Your task to perform on an android device: clear history in the chrome app Image 0: 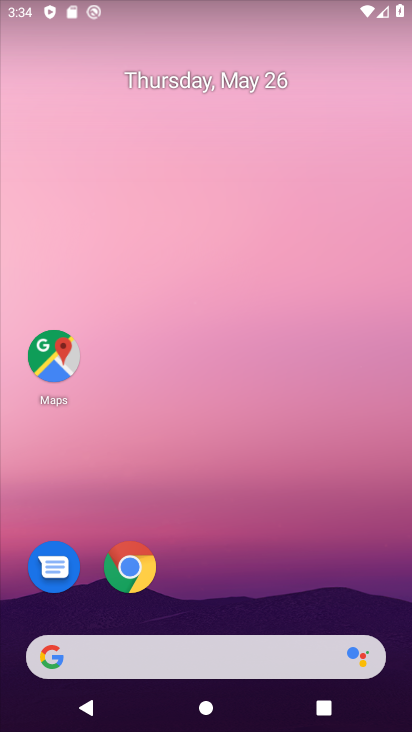
Step 0: click (139, 583)
Your task to perform on an android device: clear history in the chrome app Image 1: 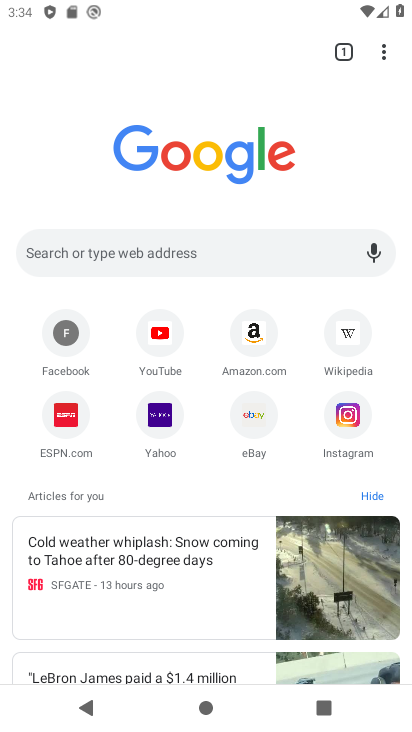
Step 1: task complete